Your task to perform on an android device: toggle notification dots Image 0: 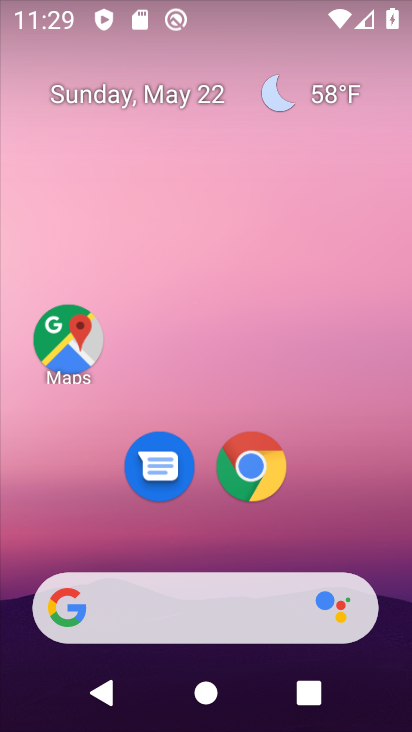
Step 0: drag from (195, 507) to (206, 61)
Your task to perform on an android device: toggle notification dots Image 1: 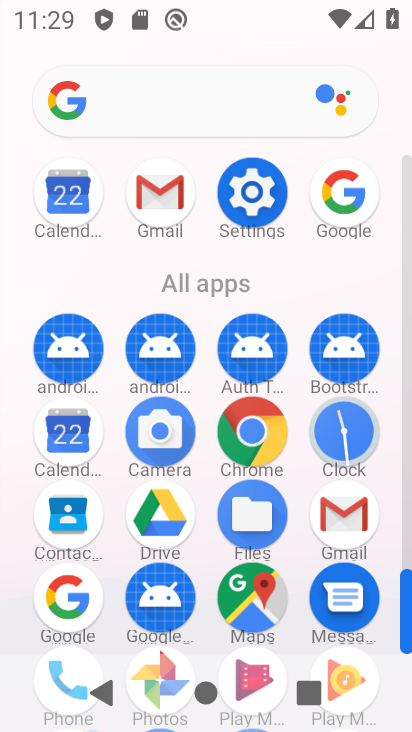
Step 1: click (258, 197)
Your task to perform on an android device: toggle notification dots Image 2: 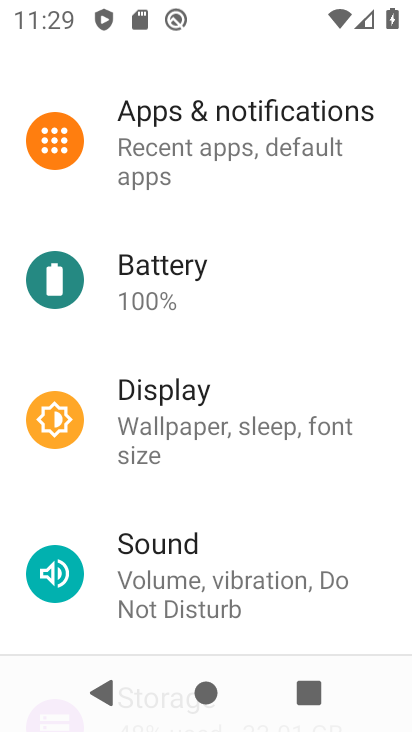
Step 2: click (227, 149)
Your task to perform on an android device: toggle notification dots Image 3: 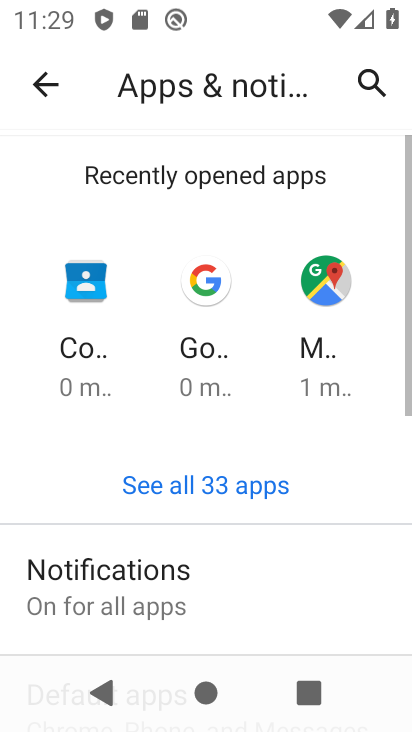
Step 3: click (150, 585)
Your task to perform on an android device: toggle notification dots Image 4: 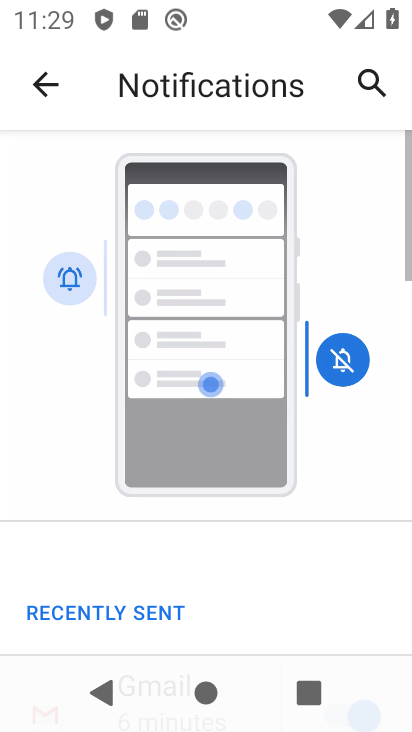
Step 4: drag from (256, 563) to (266, 18)
Your task to perform on an android device: toggle notification dots Image 5: 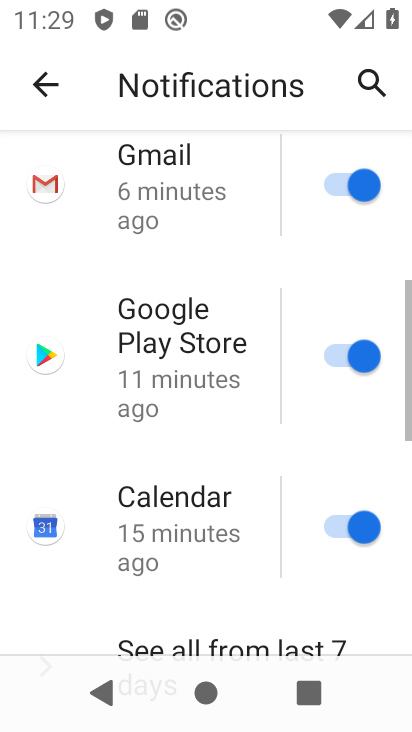
Step 5: drag from (277, 538) to (244, 86)
Your task to perform on an android device: toggle notification dots Image 6: 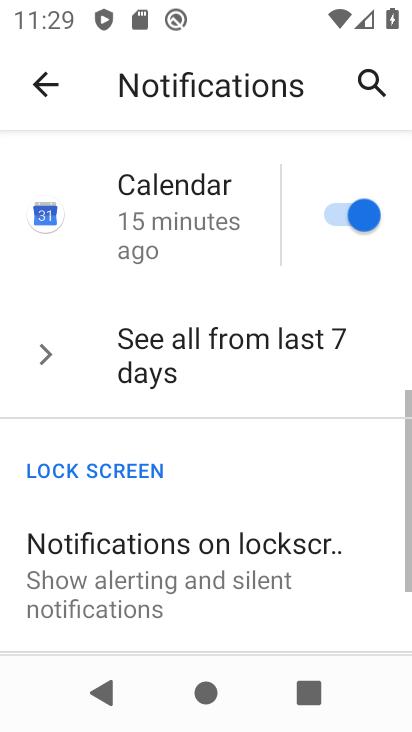
Step 6: drag from (220, 617) to (267, 187)
Your task to perform on an android device: toggle notification dots Image 7: 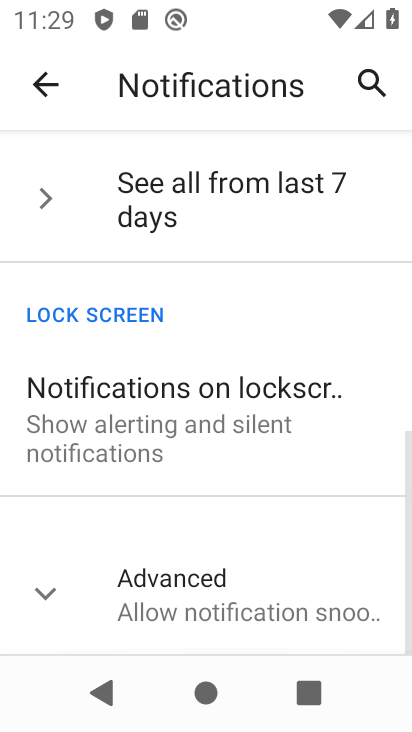
Step 7: click (166, 580)
Your task to perform on an android device: toggle notification dots Image 8: 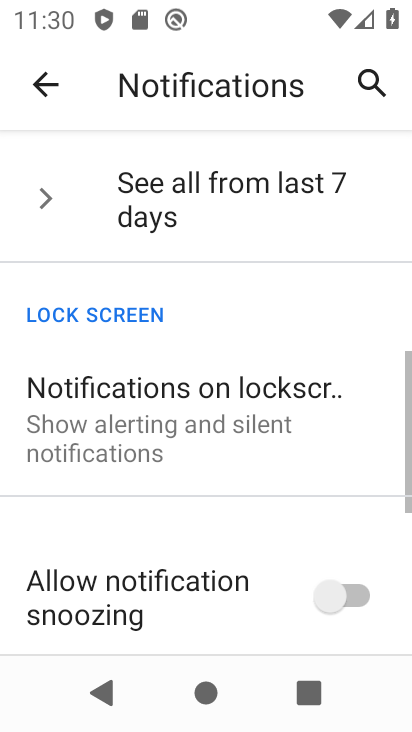
Step 8: drag from (315, 553) to (295, 121)
Your task to perform on an android device: toggle notification dots Image 9: 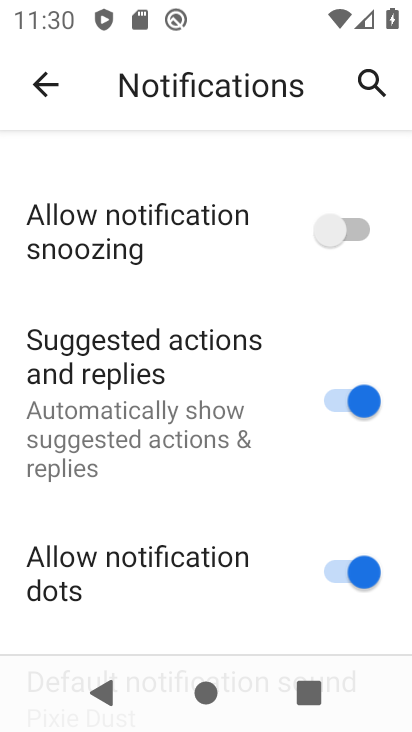
Step 9: click (347, 572)
Your task to perform on an android device: toggle notification dots Image 10: 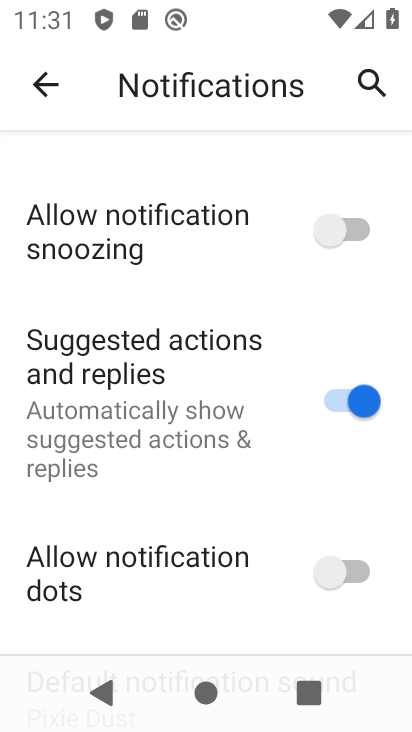
Step 10: task complete